Your task to perform on an android device: turn on sleep mode Image 0: 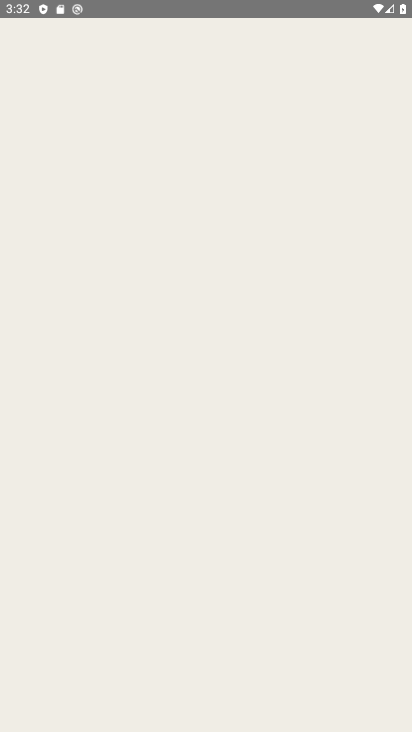
Step 0: click (331, 93)
Your task to perform on an android device: turn on sleep mode Image 1: 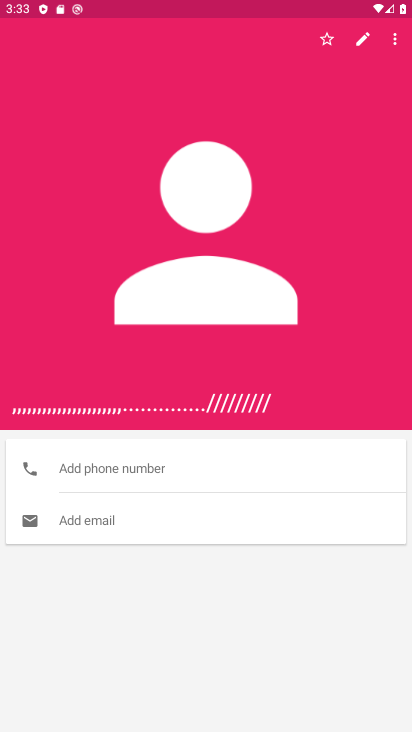
Step 1: press home button
Your task to perform on an android device: turn on sleep mode Image 2: 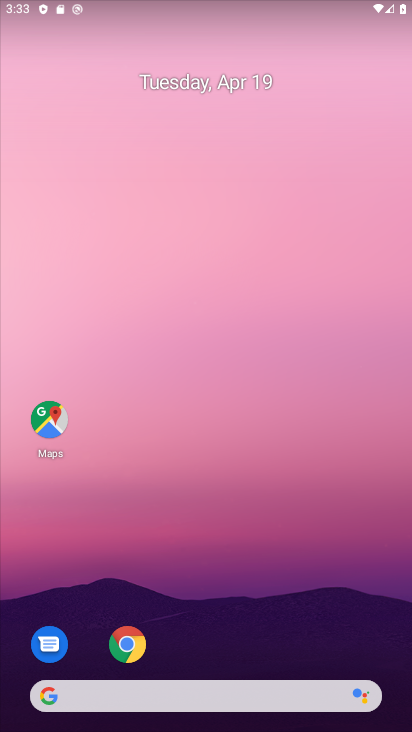
Step 2: click (298, 210)
Your task to perform on an android device: turn on sleep mode Image 3: 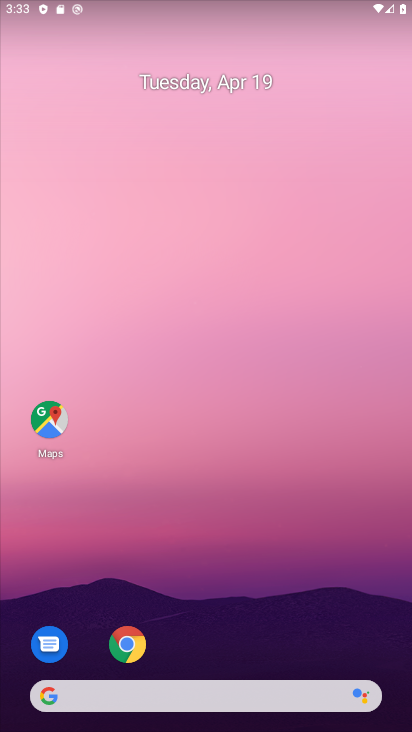
Step 3: drag from (379, 476) to (344, 109)
Your task to perform on an android device: turn on sleep mode Image 4: 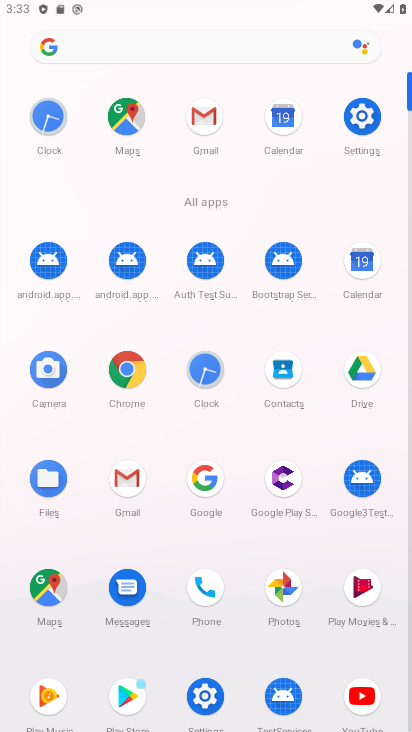
Step 4: click (361, 111)
Your task to perform on an android device: turn on sleep mode Image 5: 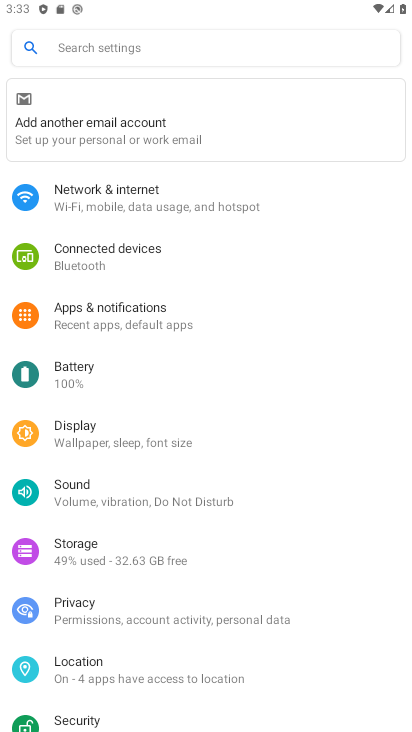
Step 5: click (66, 425)
Your task to perform on an android device: turn on sleep mode Image 6: 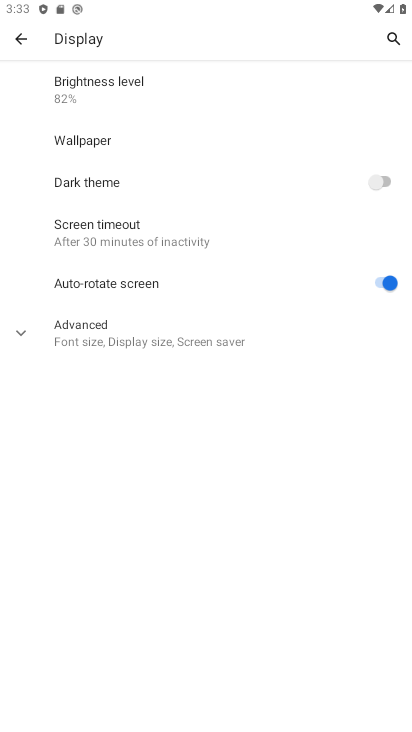
Step 6: click (108, 230)
Your task to perform on an android device: turn on sleep mode Image 7: 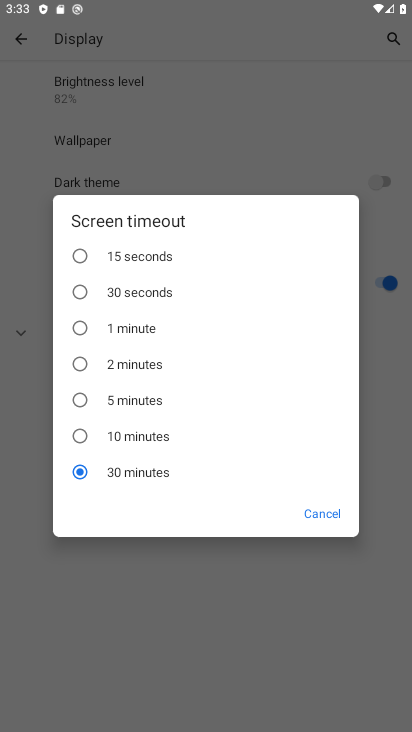
Step 7: task complete